Your task to perform on an android device: toggle notification dots Image 0: 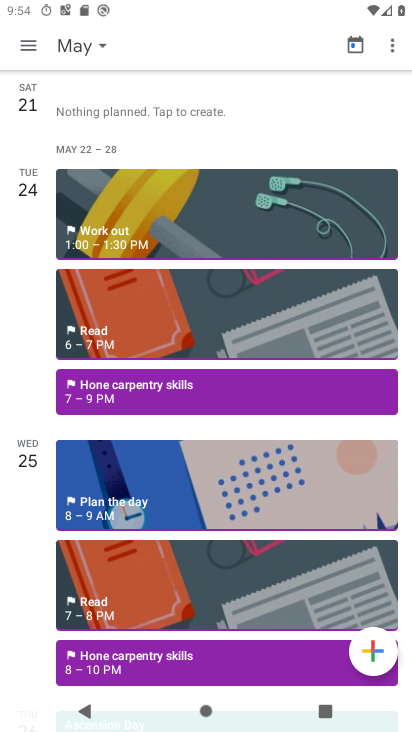
Step 0: press home button
Your task to perform on an android device: toggle notification dots Image 1: 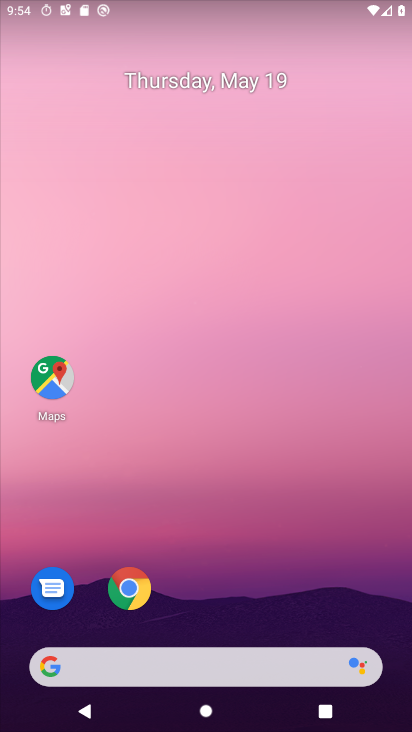
Step 1: drag from (186, 675) to (305, 174)
Your task to perform on an android device: toggle notification dots Image 2: 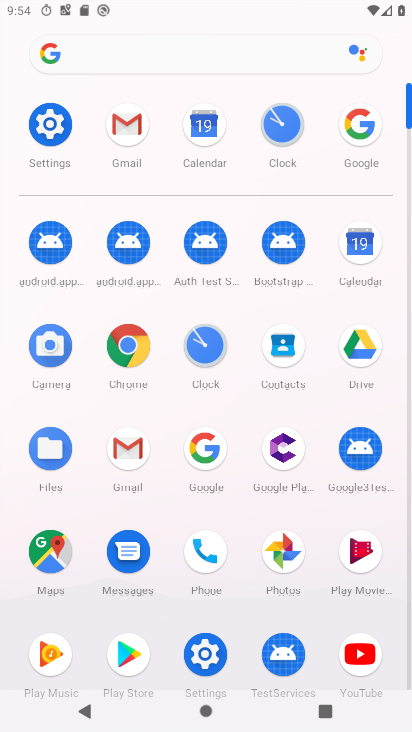
Step 2: click (54, 124)
Your task to perform on an android device: toggle notification dots Image 3: 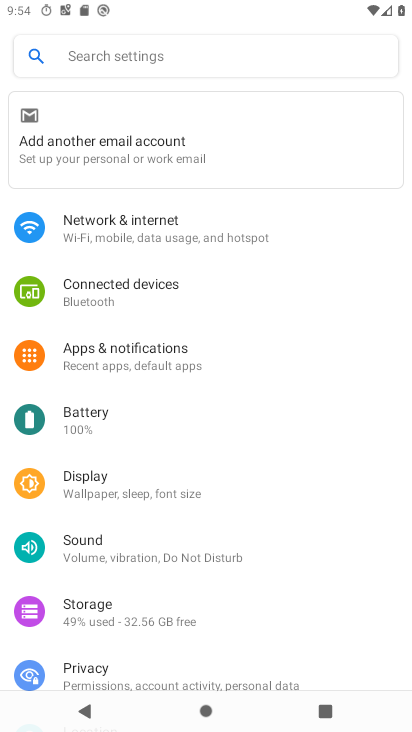
Step 3: click (134, 343)
Your task to perform on an android device: toggle notification dots Image 4: 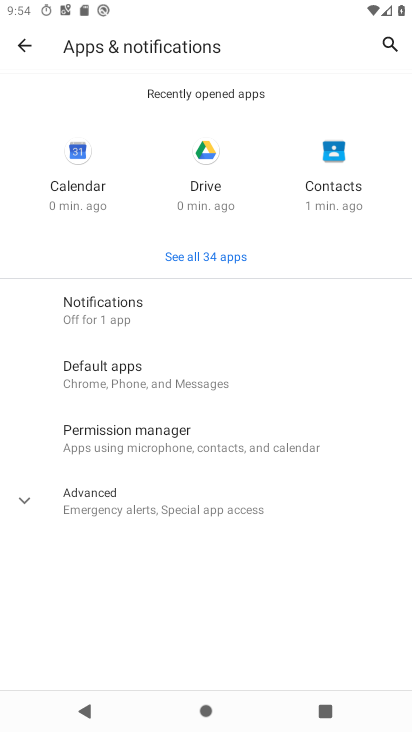
Step 4: click (117, 307)
Your task to perform on an android device: toggle notification dots Image 5: 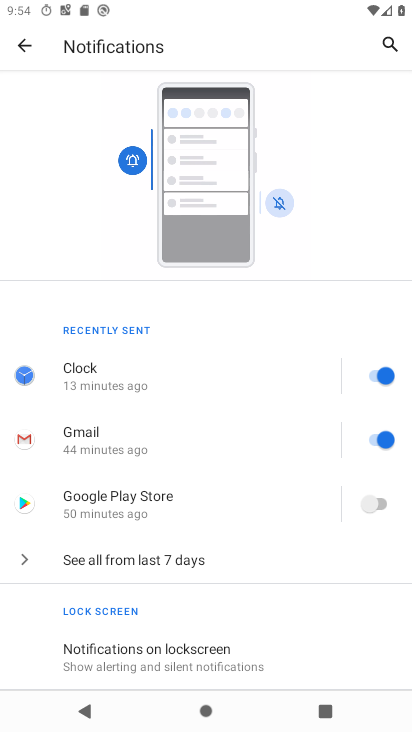
Step 5: drag from (182, 618) to (273, 180)
Your task to perform on an android device: toggle notification dots Image 6: 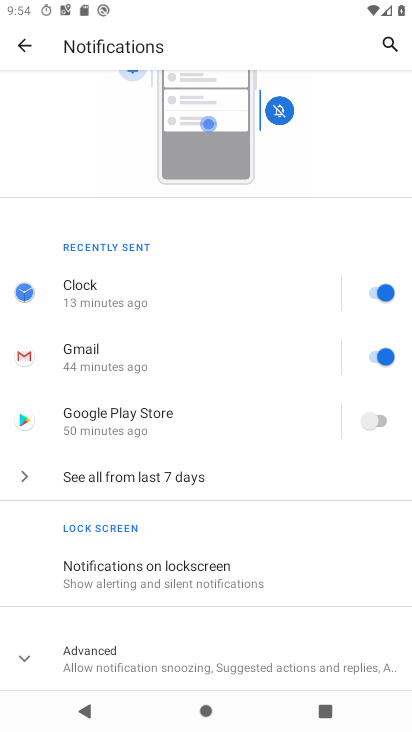
Step 6: click (115, 656)
Your task to perform on an android device: toggle notification dots Image 7: 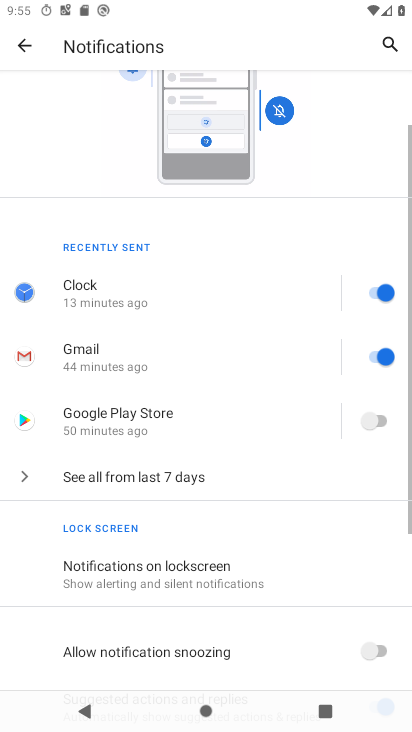
Step 7: drag from (175, 630) to (266, 155)
Your task to perform on an android device: toggle notification dots Image 8: 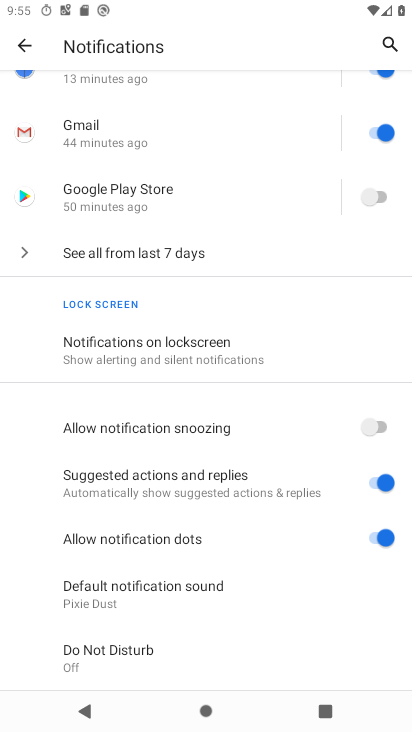
Step 8: click (372, 541)
Your task to perform on an android device: toggle notification dots Image 9: 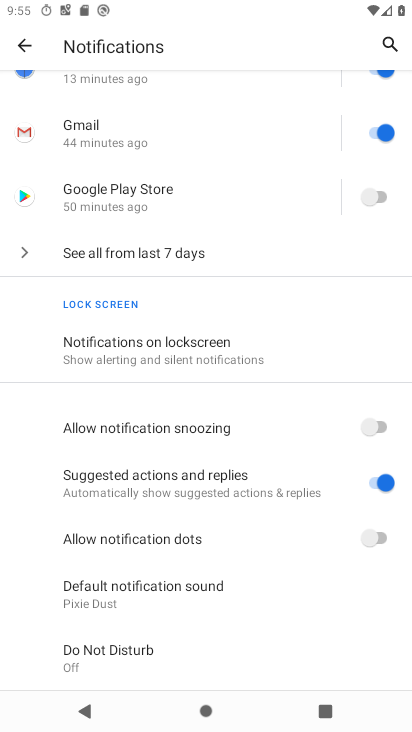
Step 9: task complete